Your task to perform on an android device: open the mobile data screen to see how much data has been used Image 0: 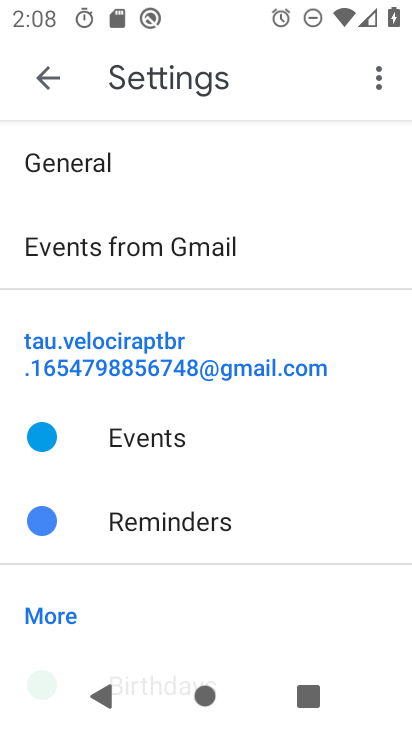
Step 0: press back button
Your task to perform on an android device: open the mobile data screen to see how much data has been used Image 1: 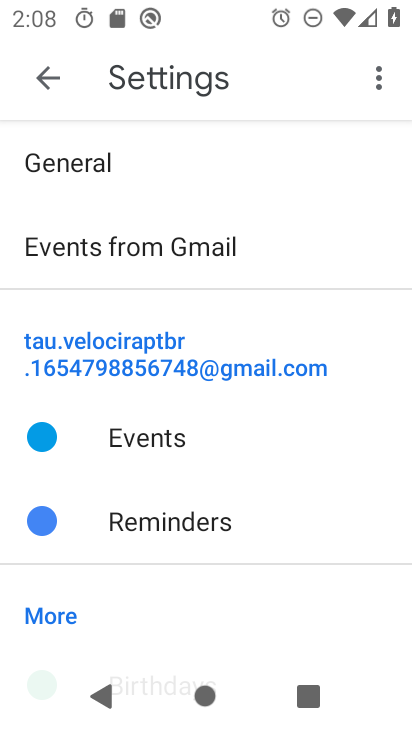
Step 1: press back button
Your task to perform on an android device: open the mobile data screen to see how much data has been used Image 2: 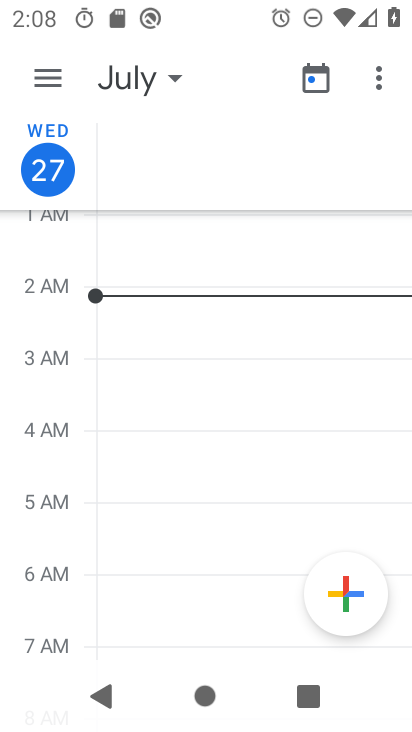
Step 2: press back button
Your task to perform on an android device: open the mobile data screen to see how much data has been used Image 3: 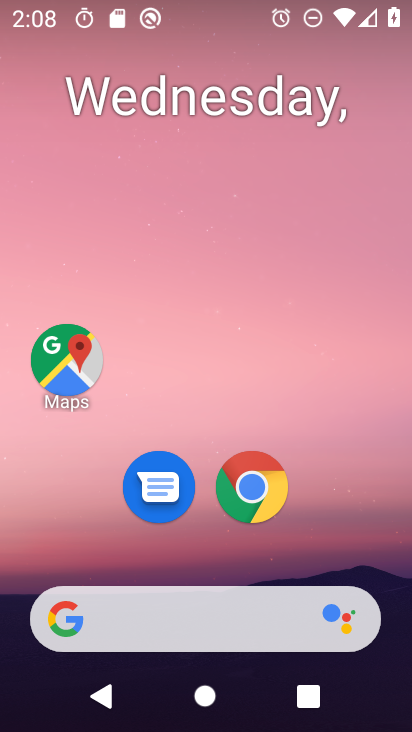
Step 3: drag from (120, 568) to (242, 25)
Your task to perform on an android device: open the mobile data screen to see how much data has been used Image 4: 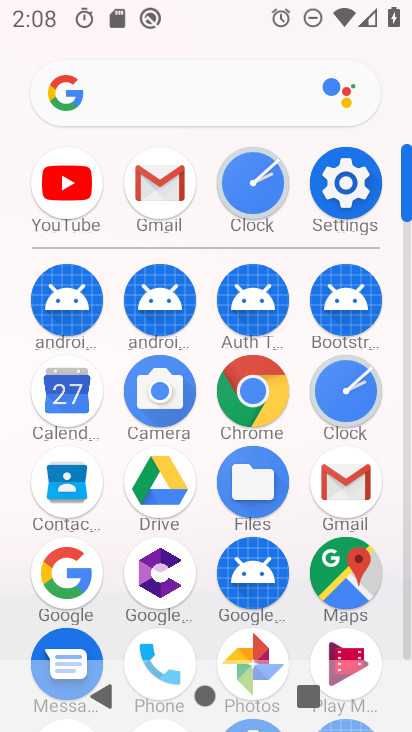
Step 4: click (346, 170)
Your task to perform on an android device: open the mobile data screen to see how much data has been used Image 5: 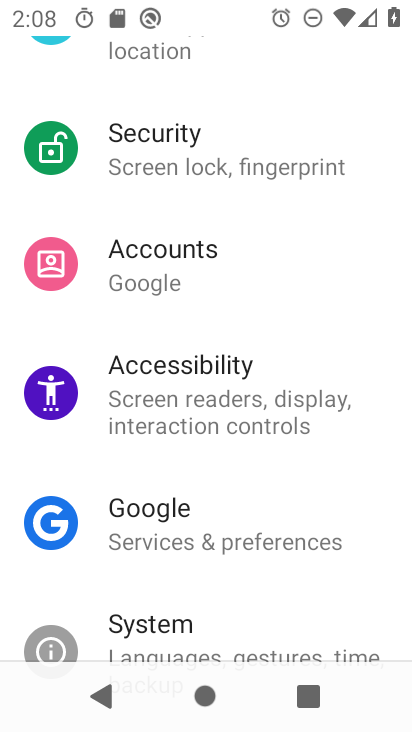
Step 5: drag from (208, 133) to (162, 683)
Your task to perform on an android device: open the mobile data screen to see how much data has been used Image 6: 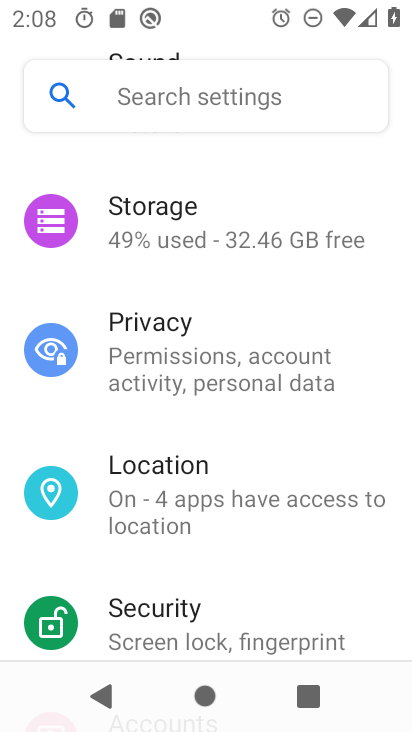
Step 6: drag from (166, 172) to (145, 663)
Your task to perform on an android device: open the mobile data screen to see how much data has been used Image 7: 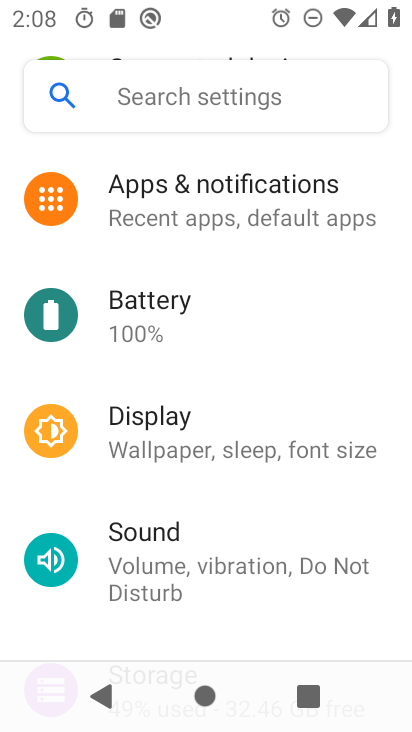
Step 7: drag from (238, 236) to (231, 720)
Your task to perform on an android device: open the mobile data screen to see how much data has been used Image 8: 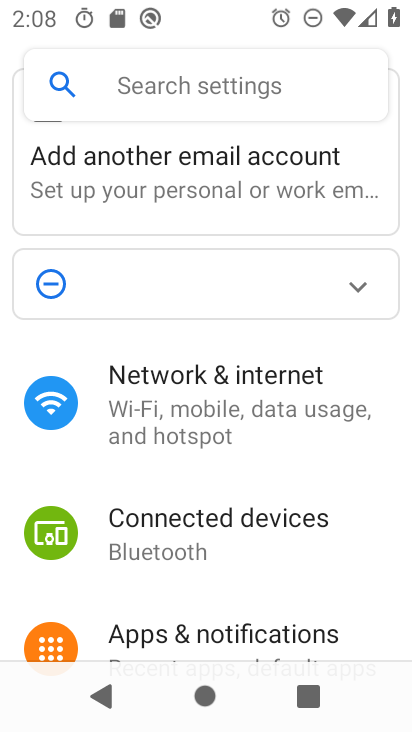
Step 8: click (214, 395)
Your task to perform on an android device: open the mobile data screen to see how much data has been used Image 9: 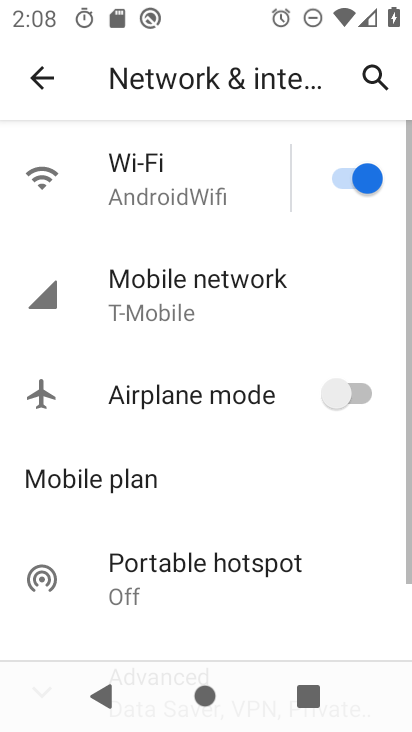
Step 9: click (198, 300)
Your task to perform on an android device: open the mobile data screen to see how much data has been used Image 10: 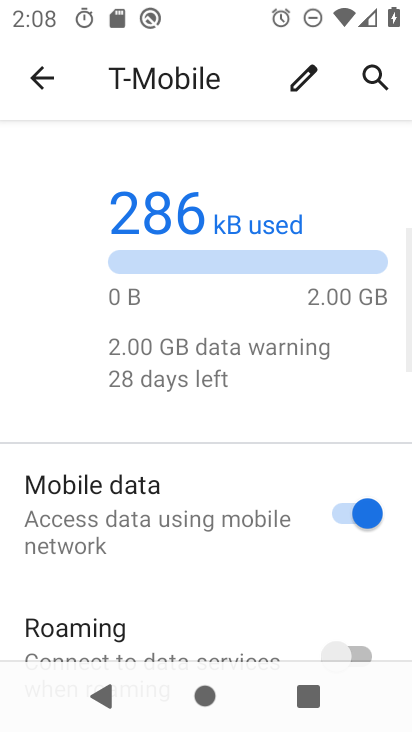
Step 10: drag from (147, 591) to (308, 65)
Your task to perform on an android device: open the mobile data screen to see how much data has been used Image 11: 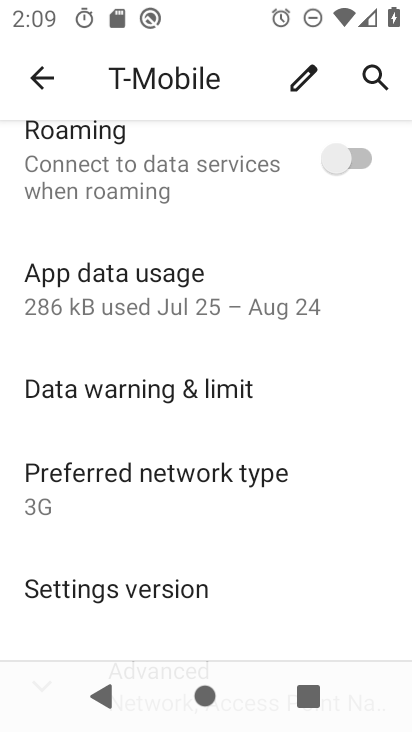
Step 11: click (107, 275)
Your task to perform on an android device: open the mobile data screen to see how much data has been used Image 12: 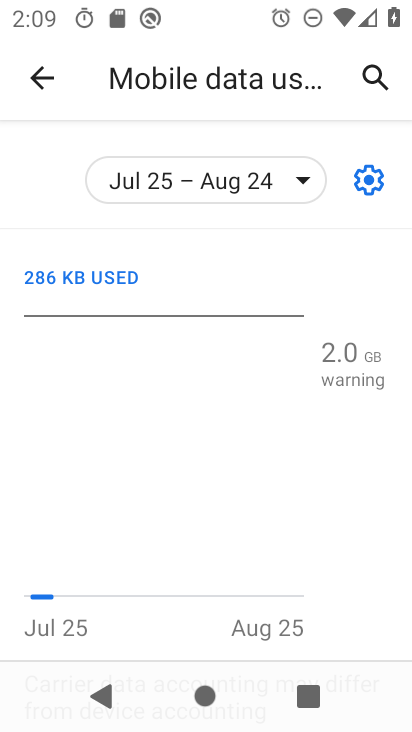
Step 12: task complete